Your task to perform on an android device: toggle airplane mode Image 0: 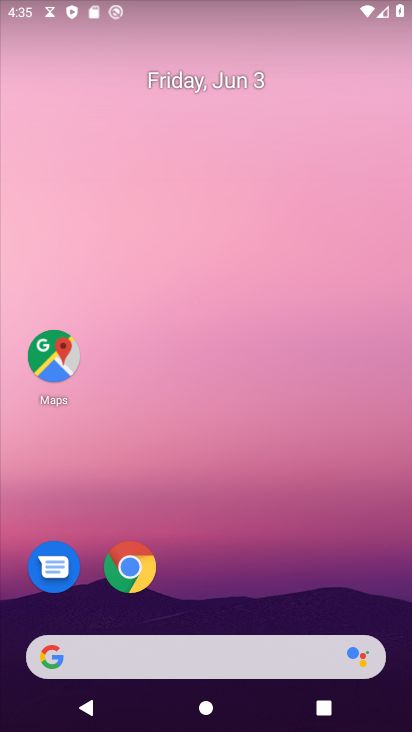
Step 0: drag from (218, 570) to (218, 72)
Your task to perform on an android device: toggle airplane mode Image 1: 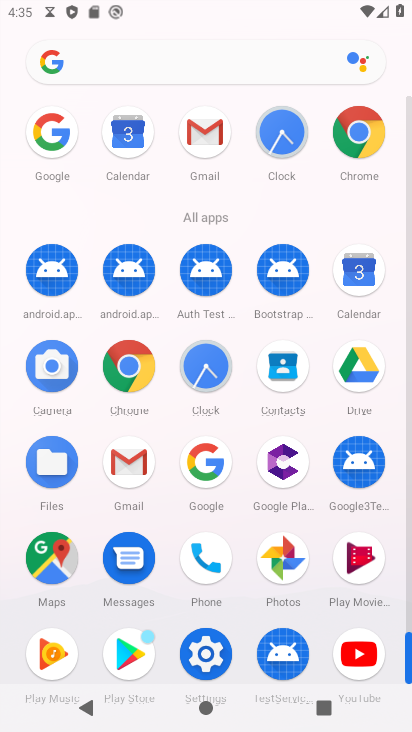
Step 1: click (203, 651)
Your task to perform on an android device: toggle airplane mode Image 2: 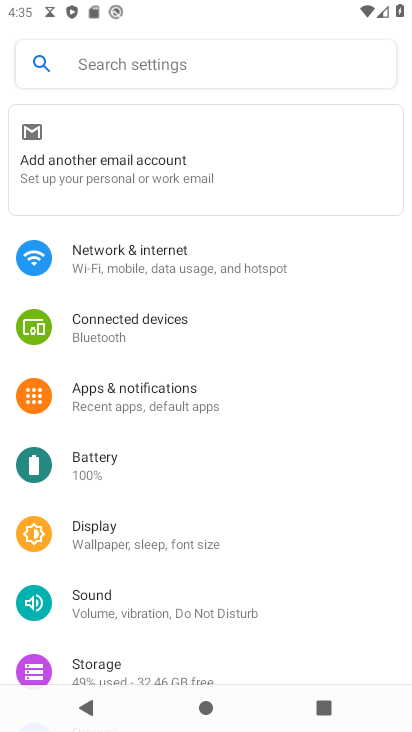
Step 2: click (169, 256)
Your task to perform on an android device: toggle airplane mode Image 3: 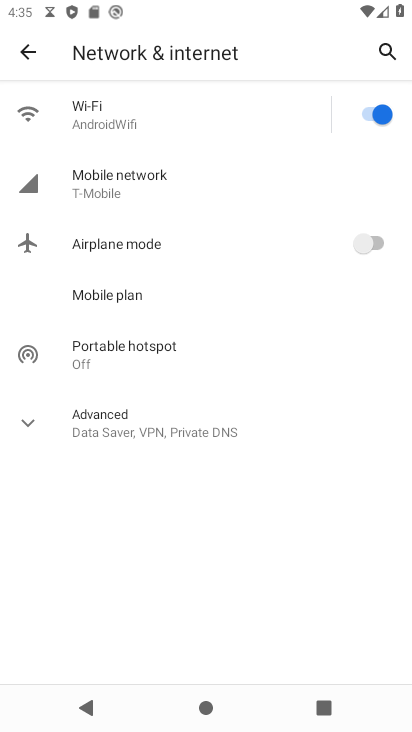
Step 3: click (359, 240)
Your task to perform on an android device: toggle airplane mode Image 4: 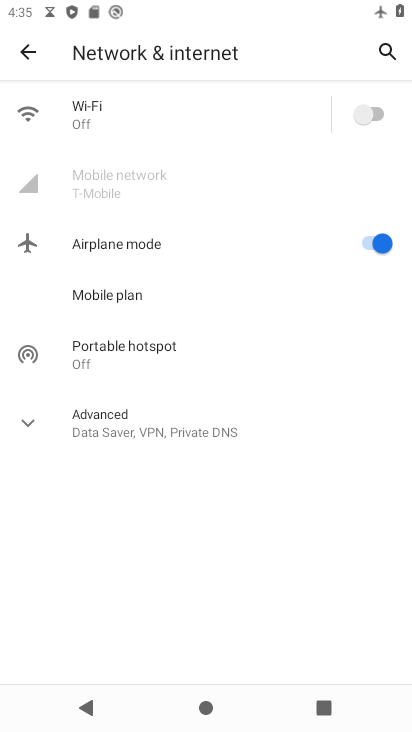
Step 4: task complete